Your task to perform on an android device: toggle javascript in the chrome app Image 0: 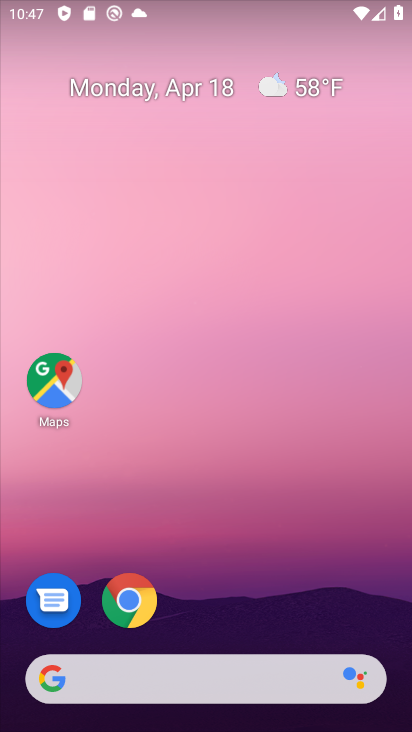
Step 0: drag from (212, 645) to (221, 122)
Your task to perform on an android device: toggle javascript in the chrome app Image 1: 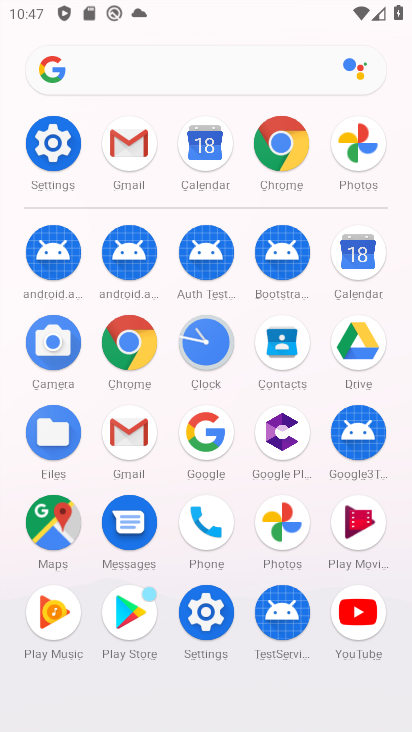
Step 1: click (283, 138)
Your task to perform on an android device: toggle javascript in the chrome app Image 2: 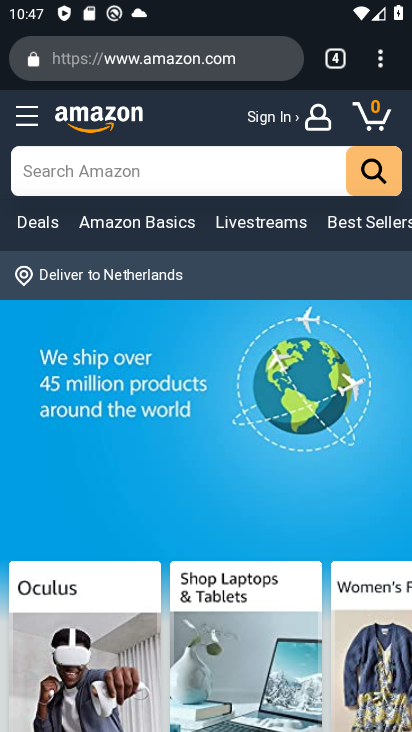
Step 2: click (380, 63)
Your task to perform on an android device: toggle javascript in the chrome app Image 3: 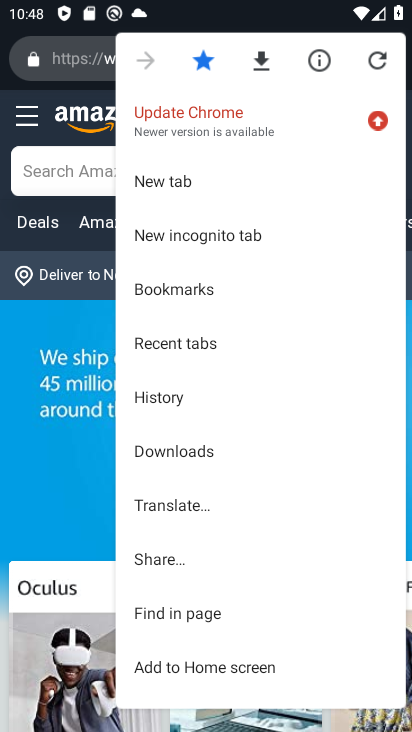
Step 3: drag from (229, 517) to (193, 141)
Your task to perform on an android device: toggle javascript in the chrome app Image 4: 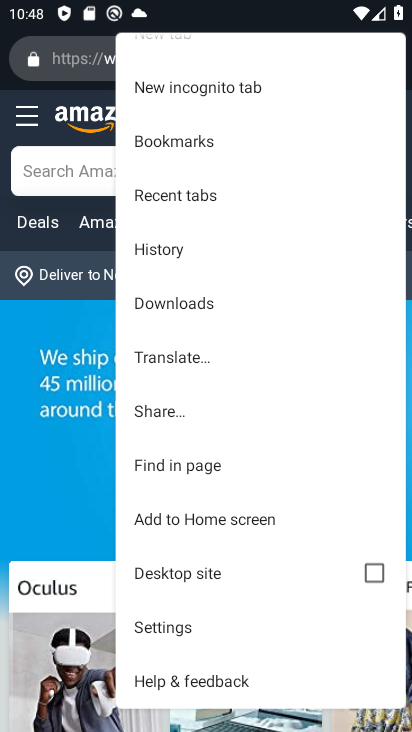
Step 4: click (177, 625)
Your task to perform on an android device: toggle javascript in the chrome app Image 5: 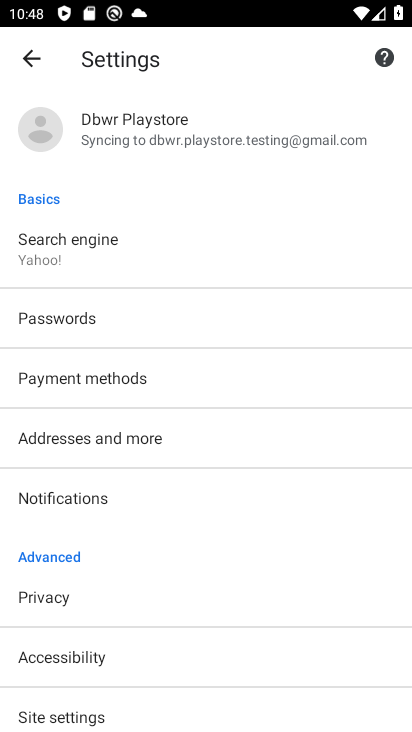
Step 5: drag from (182, 595) to (183, 121)
Your task to perform on an android device: toggle javascript in the chrome app Image 6: 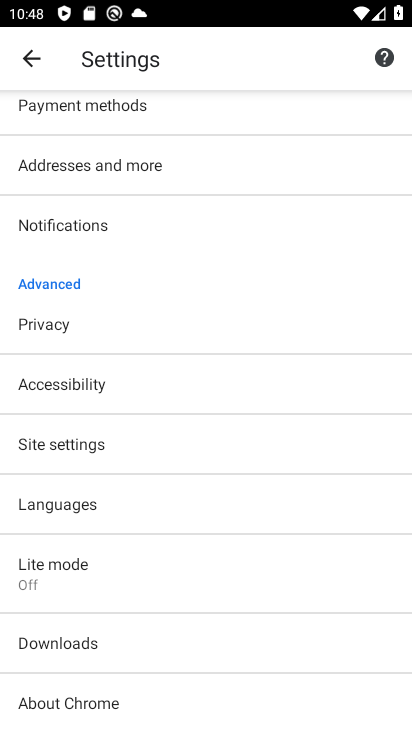
Step 6: click (98, 448)
Your task to perform on an android device: toggle javascript in the chrome app Image 7: 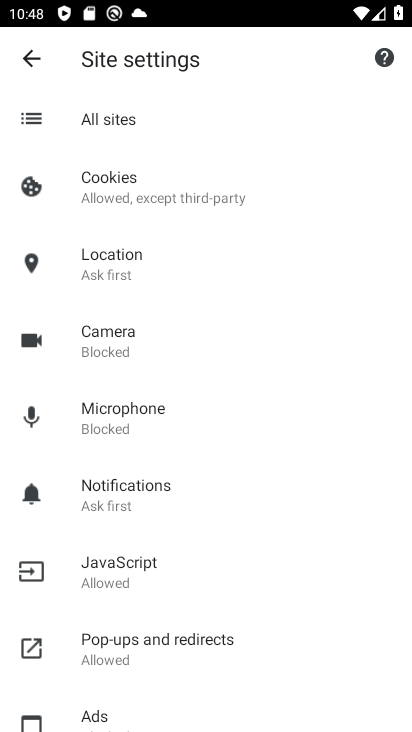
Step 7: click (116, 570)
Your task to perform on an android device: toggle javascript in the chrome app Image 8: 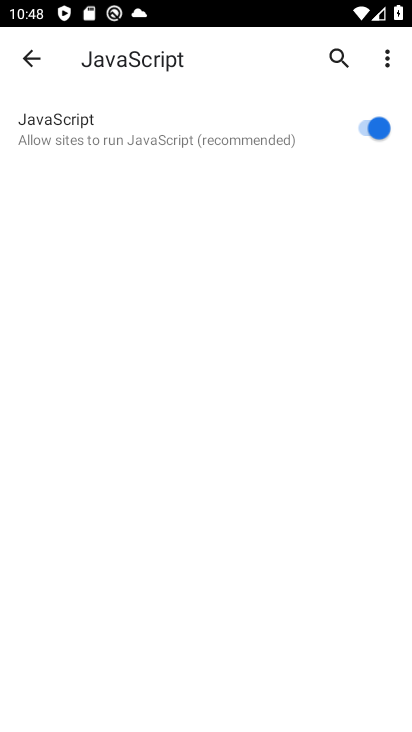
Step 8: click (368, 131)
Your task to perform on an android device: toggle javascript in the chrome app Image 9: 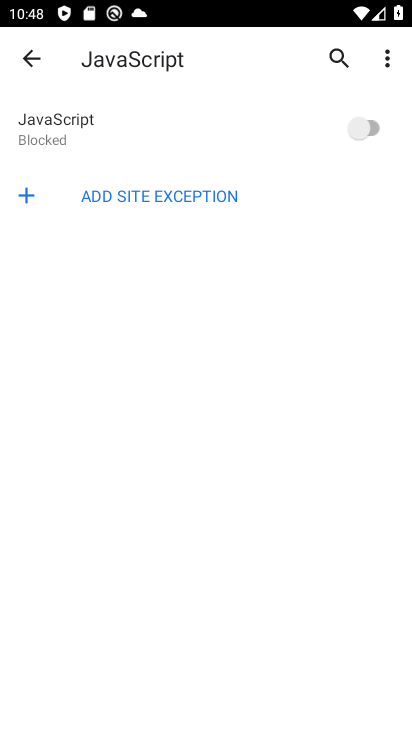
Step 9: task complete